Your task to perform on an android device: Open settings on Google Maps Image 0: 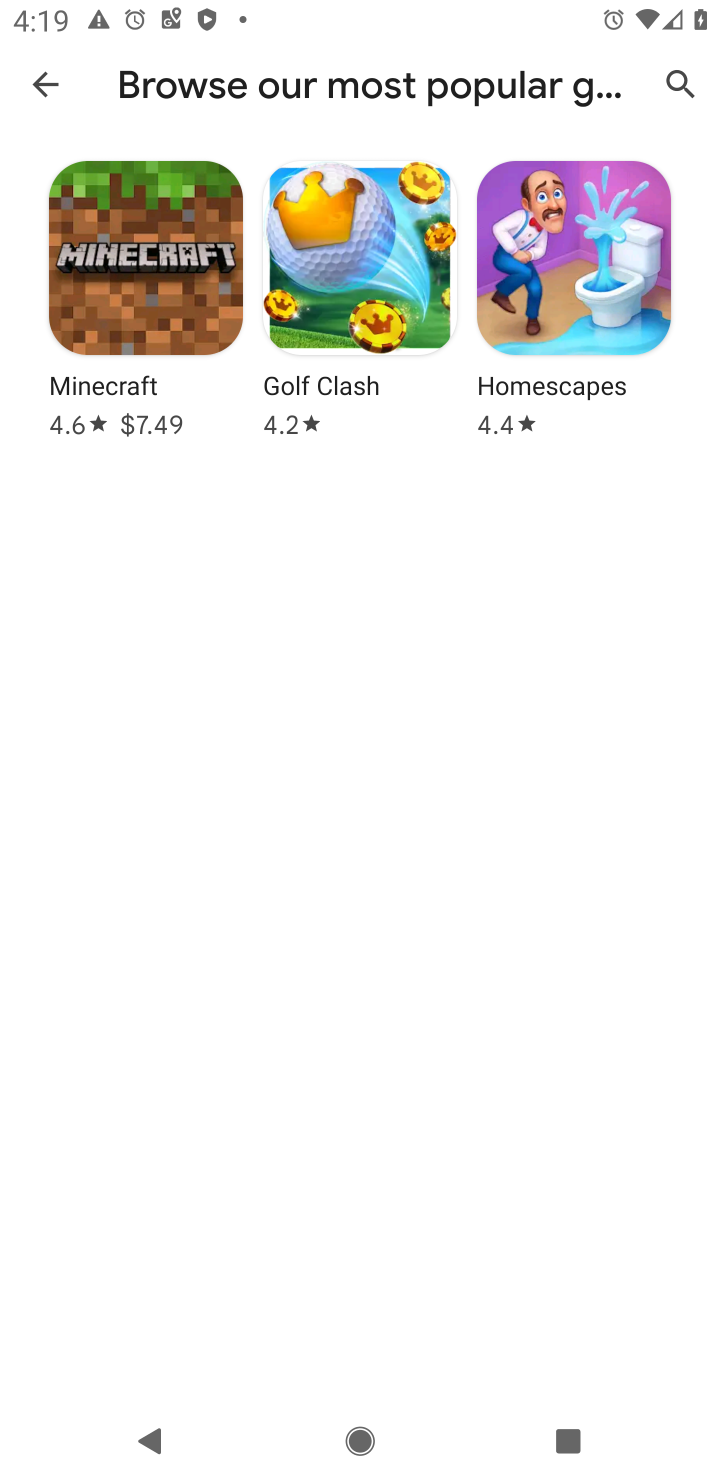
Step 0: press home button
Your task to perform on an android device: Open settings on Google Maps Image 1: 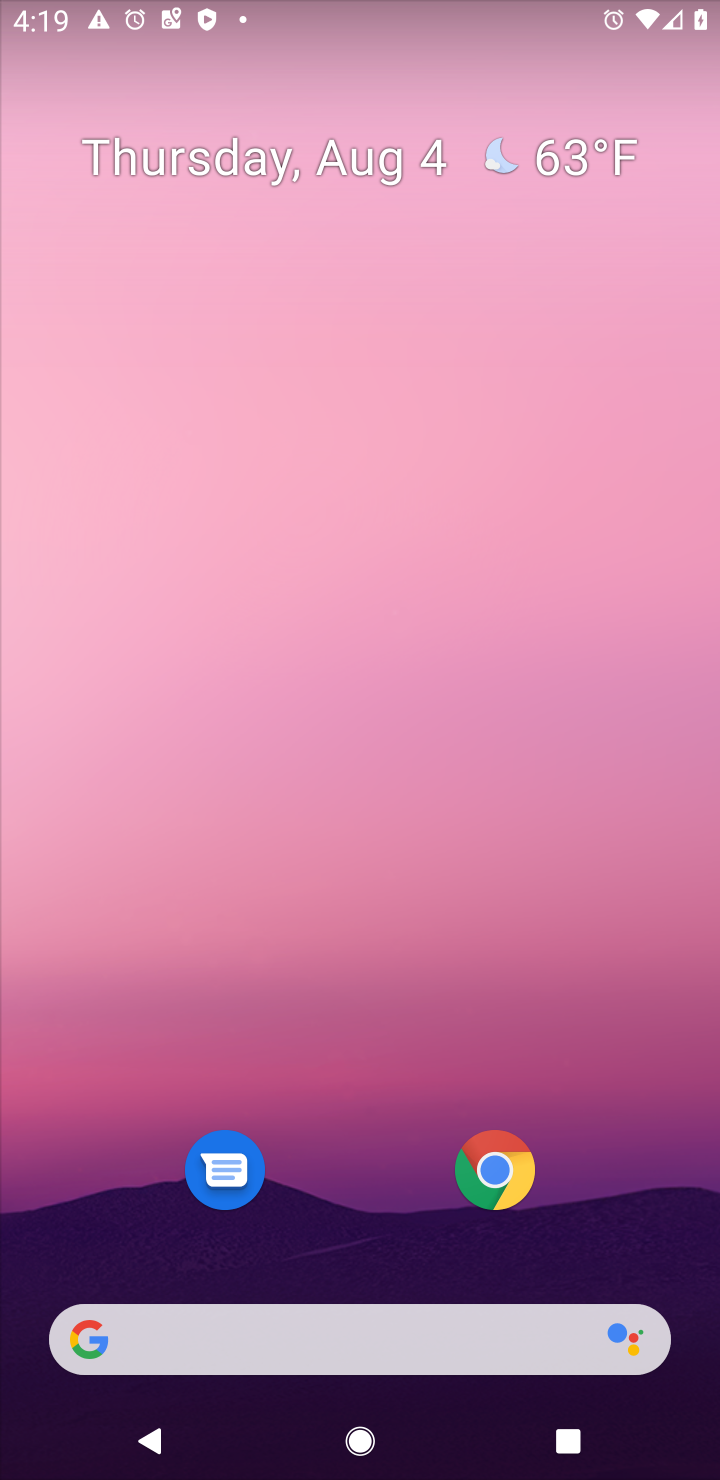
Step 1: drag from (677, 1226) to (539, 250)
Your task to perform on an android device: Open settings on Google Maps Image 2: 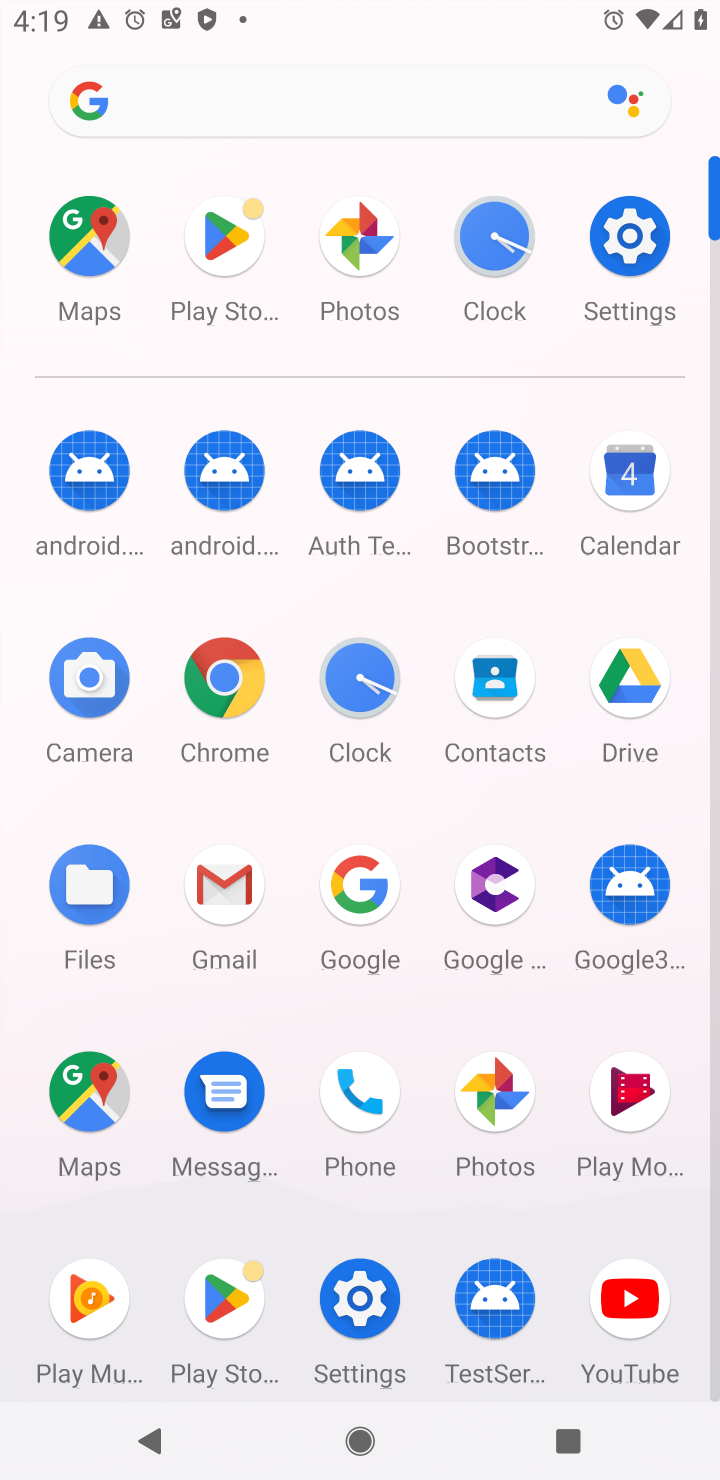
Step 2: click (80, 1091)
Your task to perform on an android device: Open settings on Google Maps Image 3: 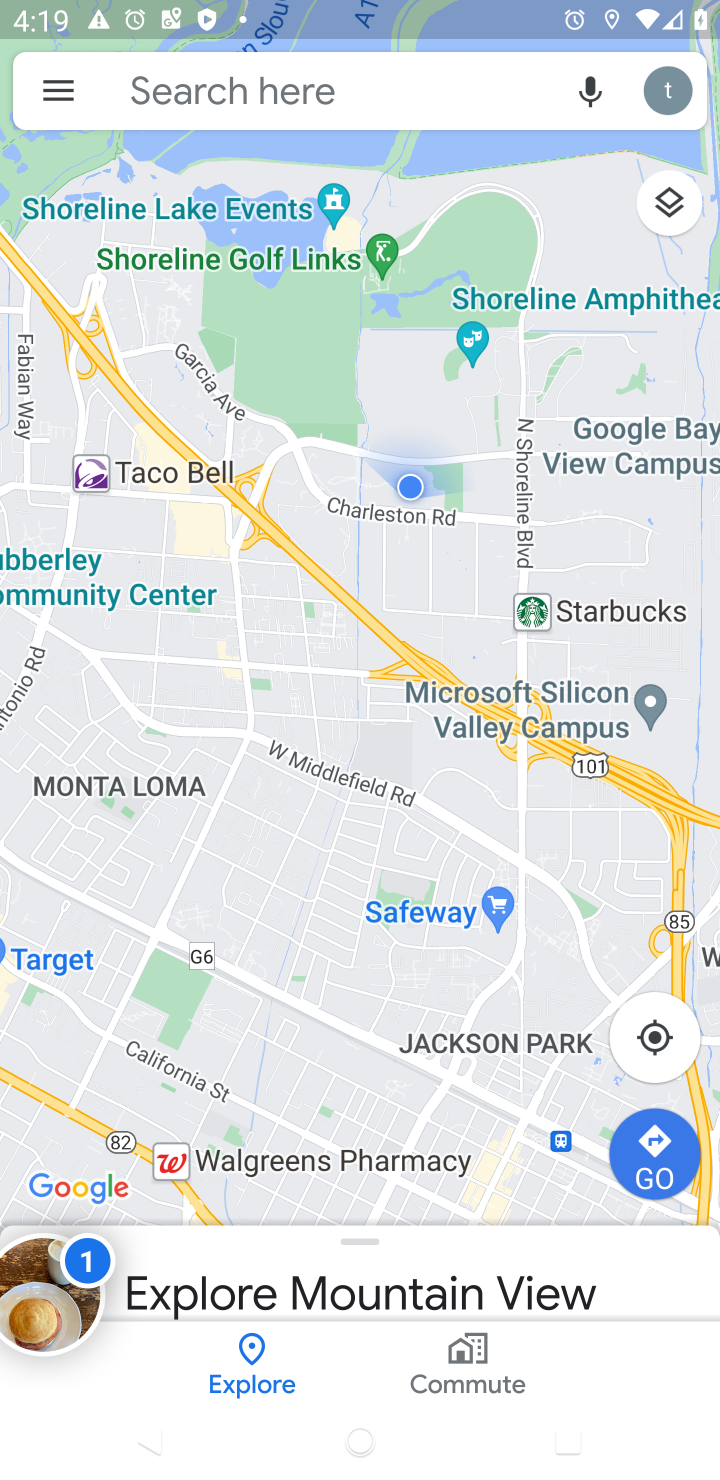
Step 3: click (48, 100)
Your task to perform on an android device: Open settings on Google Maps Image 4: 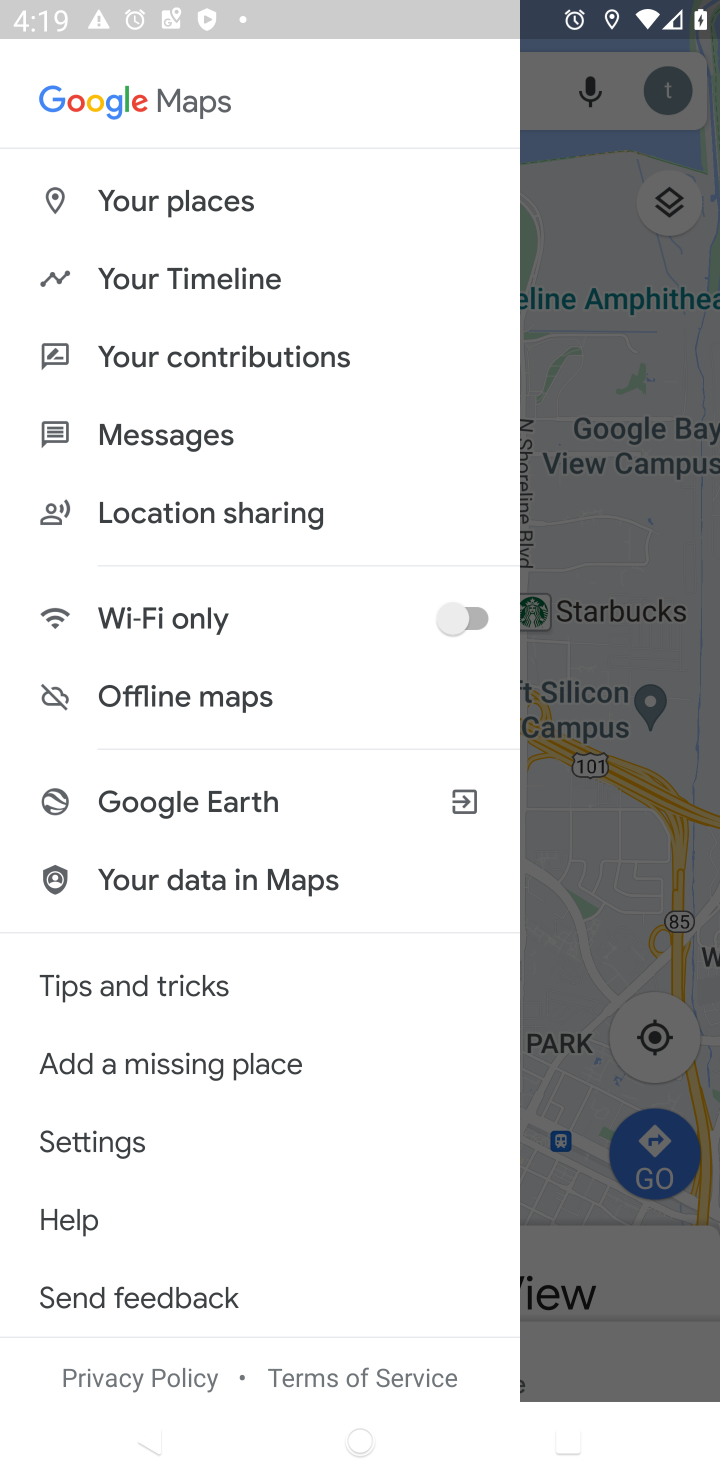
Step 4: click (118, 1133)
Your task to perform on an android device: Open settings on Google Maps Image 5: 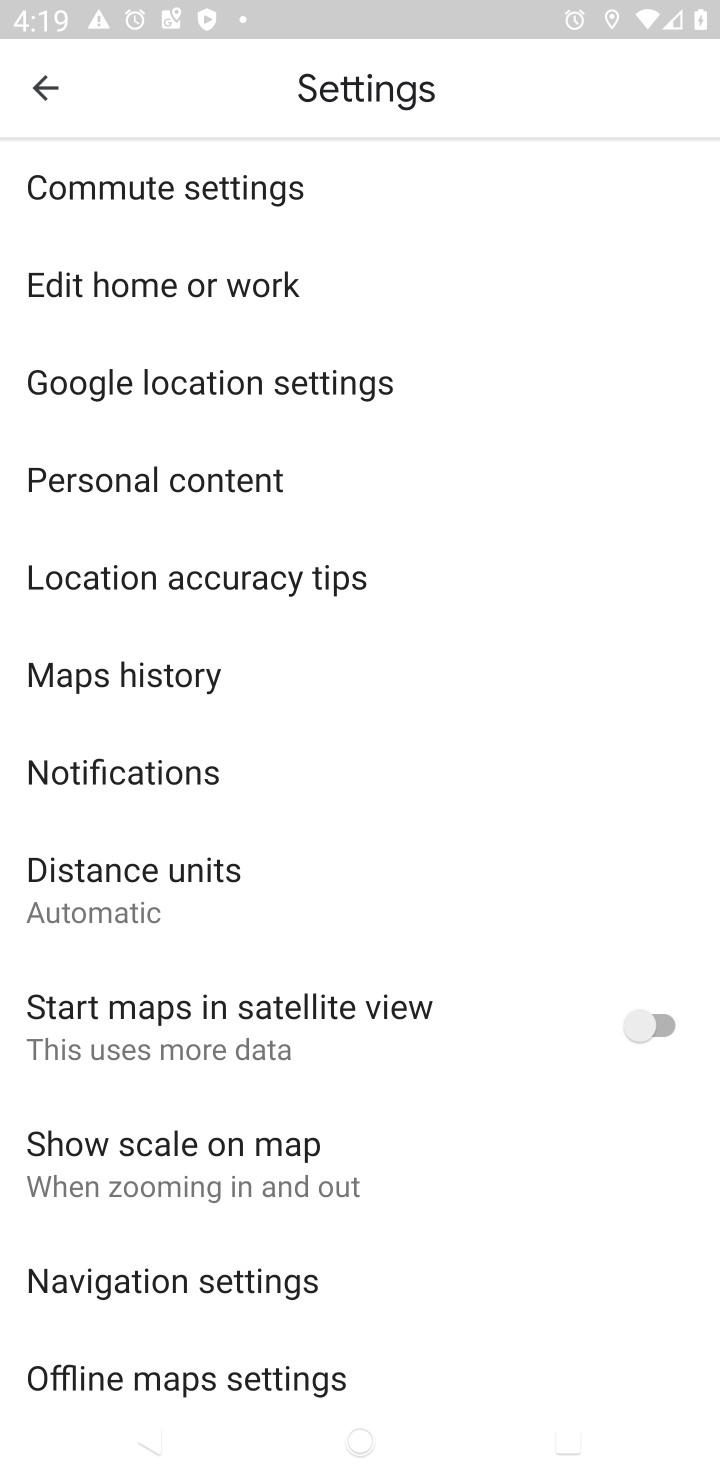
Step 5: task complete